Your task to perform on an android device: toggle location history Image 0: 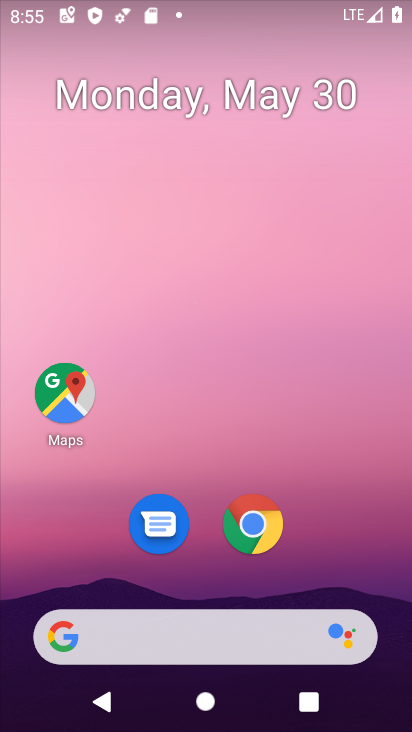
Step 0: drag from (343, 540) to (333, 1)
Your task to perform on an android device: toggle location history Image 1: 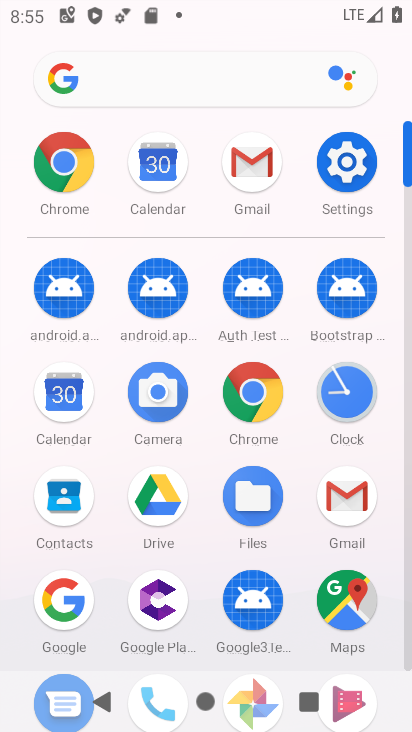
Step 1: click (353, 201)
Your task to perform on an android device: toggle location history Image 2: 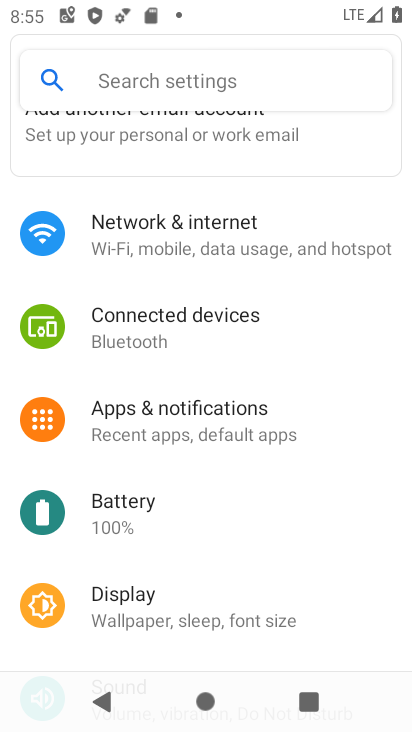
Step 2: drag from (267, 571) to (267, 93)
Your task to perform on an android device: toggle location history Image 3: 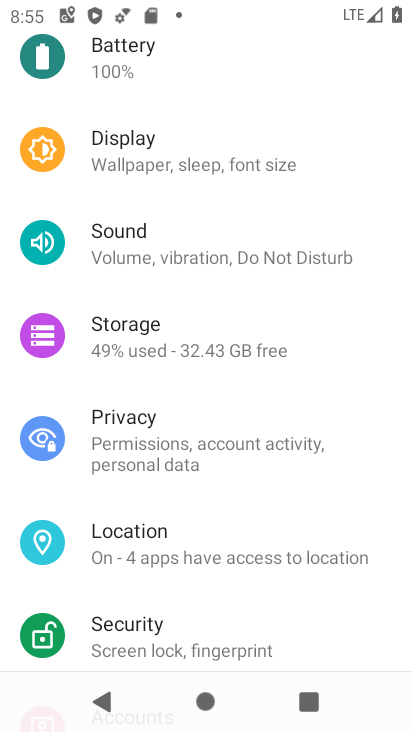
Step 3: click (252, 544)
Your task to perform on an android device: toggle location history Image 4: 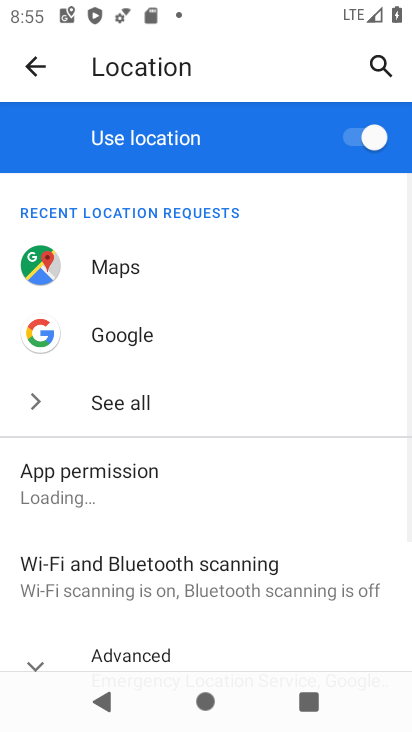
Step 4: drag from (258, 530) to (261, 144)
Your task to perform on an android device: toggle location history Image 5: 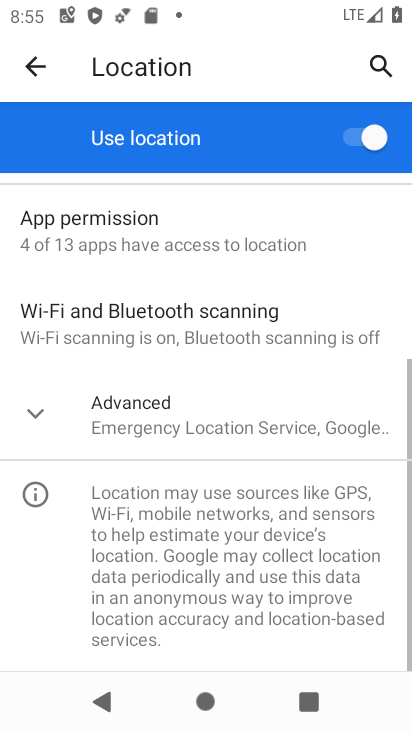
Step 5: click (25, 416)
Your task to perform on an android device: toggle location history Image 6: 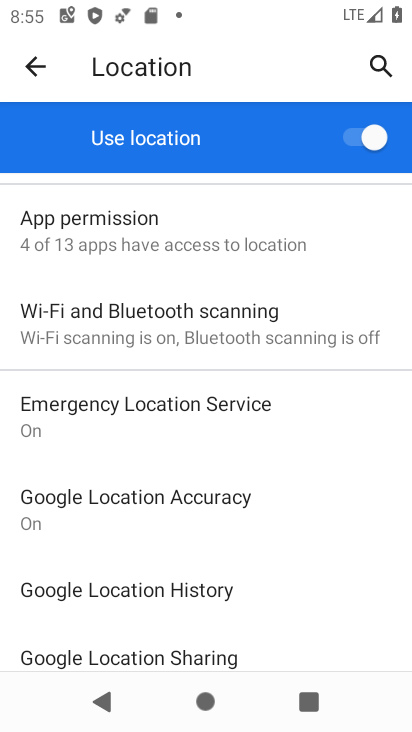
Step 6: click (232, 594)
Your task to perform on an android device: toggle location history Image 7: 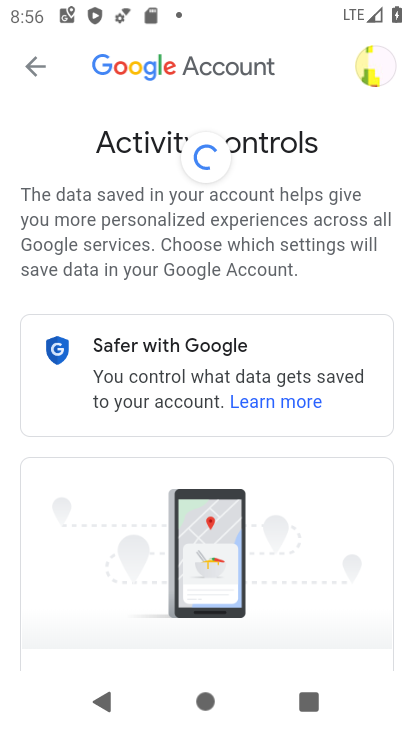
Step 7: drag from (348, 559) to (340, 228)
Your task to perform on an android device: toggle location history Image 8: 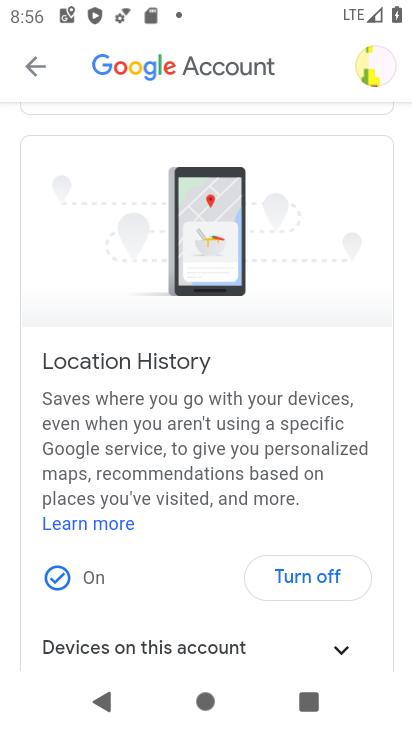
Step 8: click (311, 568)
Your task to perform on an android device: toggle location history Image 9: 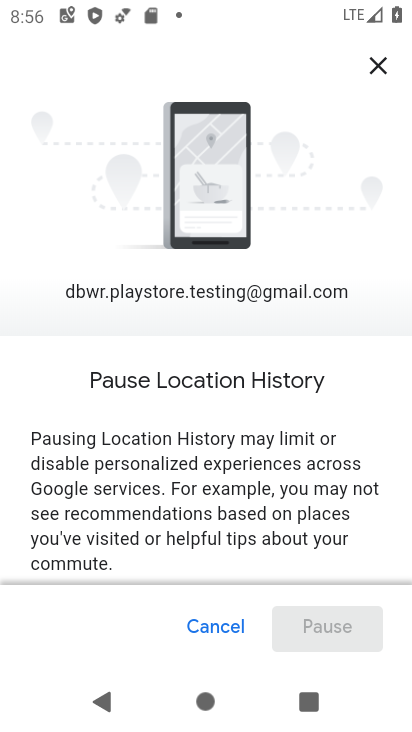
Step 9: drag from (305, 543) to (310, 0)
Your task to perform on an android device: toggle location history Image 10: 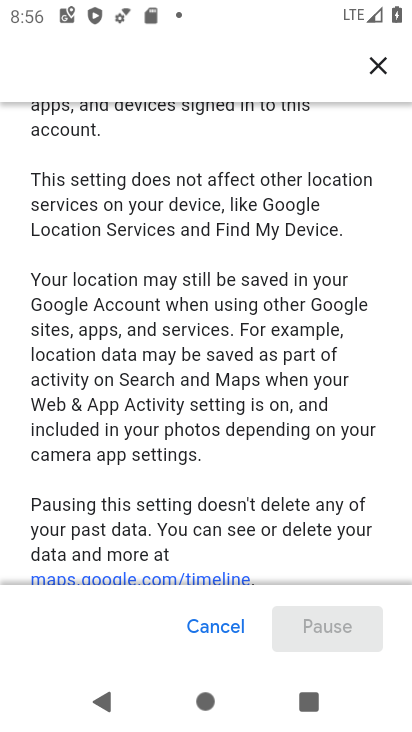
Step 10: drag from (264, 436) to (280, 73)
Your task to perform on an android device: toggle location history Image 11: 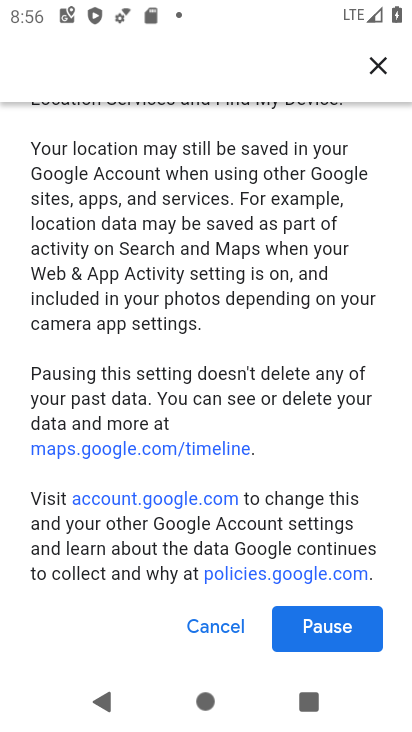
Step 11: click (319, 632)
Your task to perform on an android device: toggle location history Image 12: 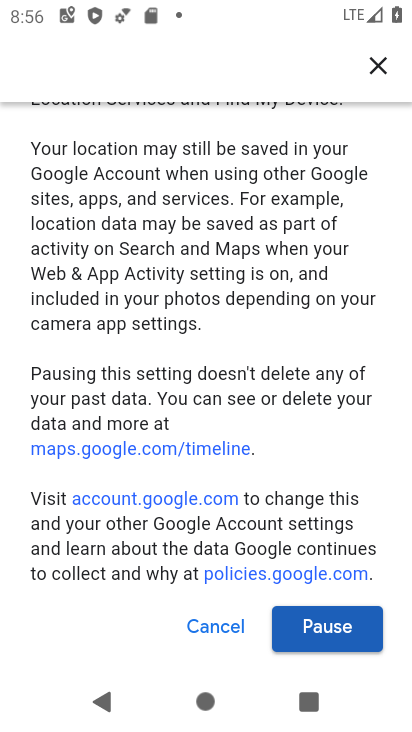
Step 12: click (319, 629)
Your task to perform on an android device: toggle location history Image 13: 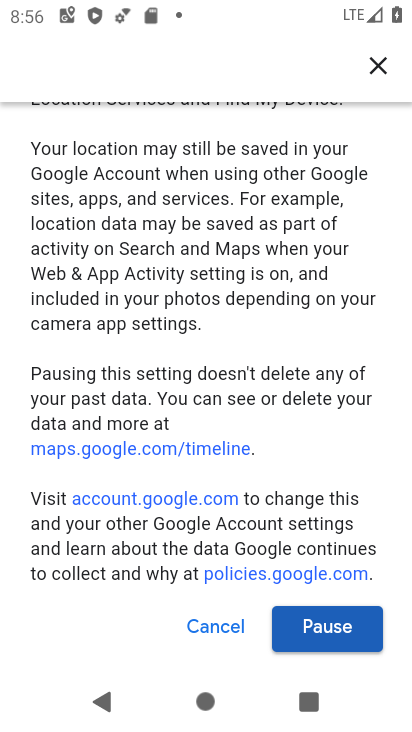
Step 13: click (319, 629)
Your task to perform on an android device: toggle location history Image 14: 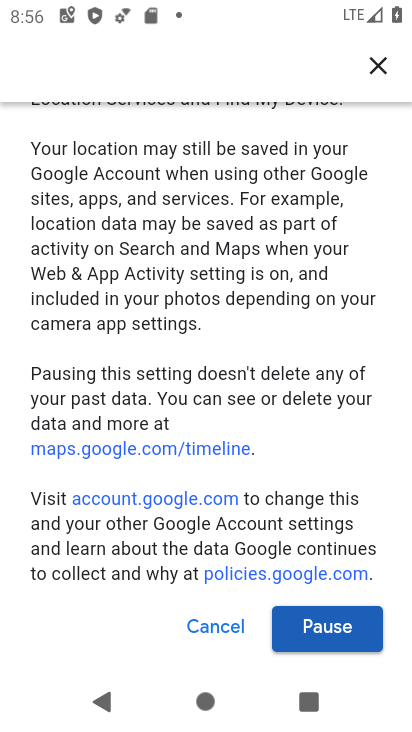
Step 14: click (319, 629)
Your task to perform on an android device: toggle location history Image 15: 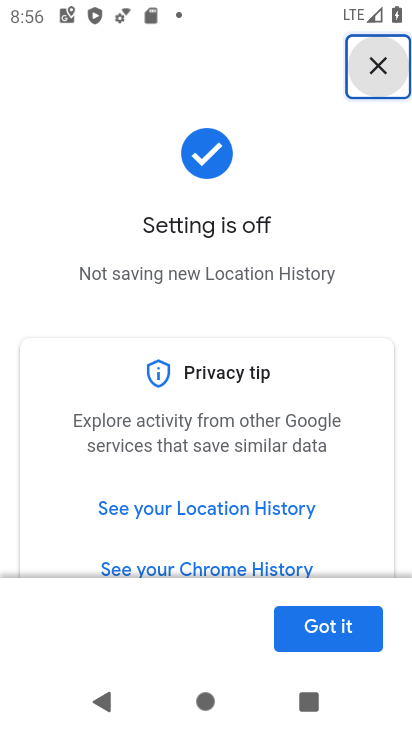
Step 15: click (319, 627)
Your task to perform on an android device: toggle location history Image 16: 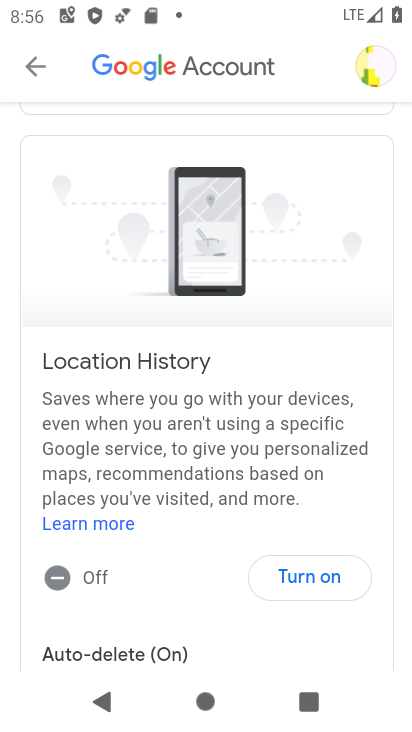
Step 16: task complete